Your task to perform on an android device: Turn off the flashlight Image 0: 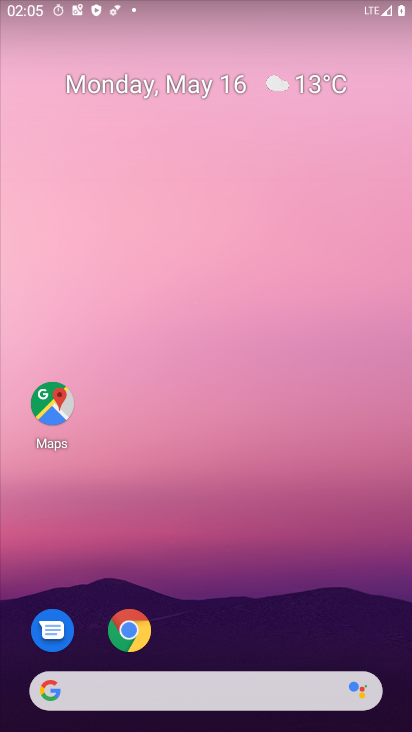
Step 0: drag from (354, 553) to (305, 99)
Your task to perform on an android device: Turn off the flashlight Image 1: 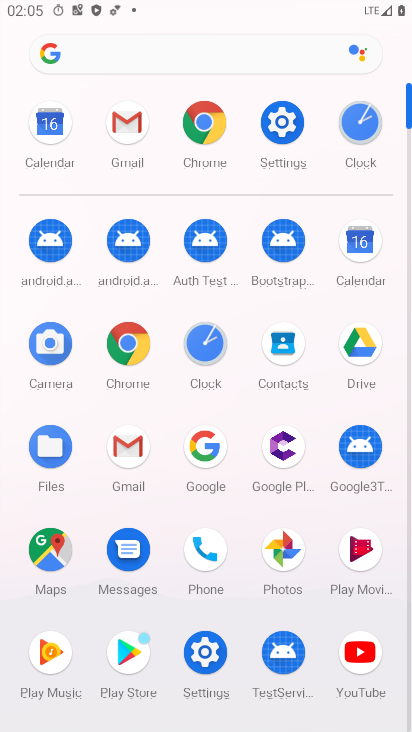
Step 1: click (289, 117)
Your task to perform on an android device: Turn off the flashlight Image 2: 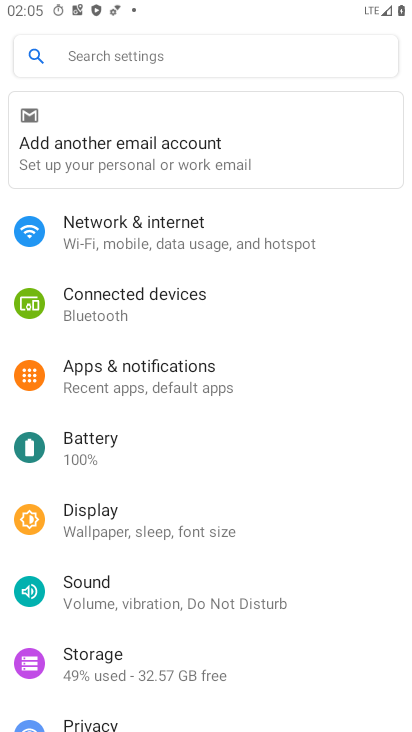
Step 2: click (271, 66)
Your task to perform on an android device: Turn off the flashlight Image 3: 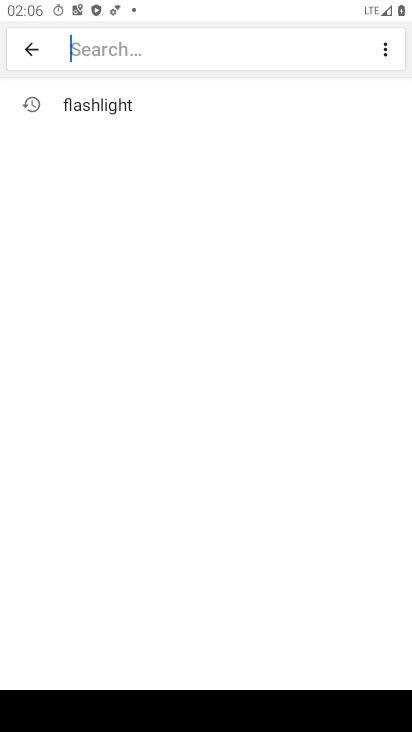
Step 3: type "flashlight"
Your task to perform on an android device: Turn off the flashlight Image 4: 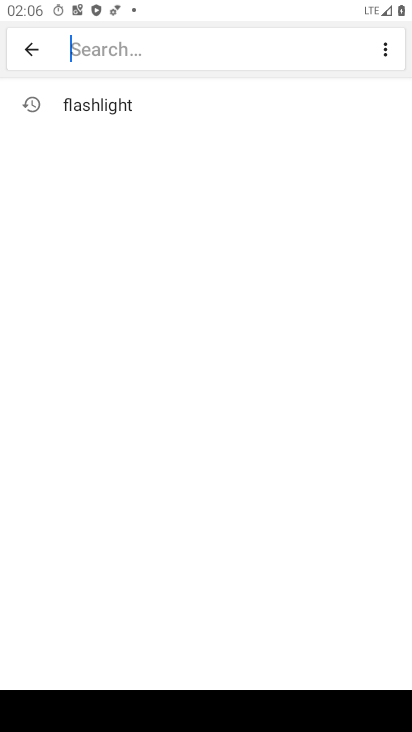
Step 4: click (96, 98)
Your task to perform on an android device: Turn off the flashlight Image 5: 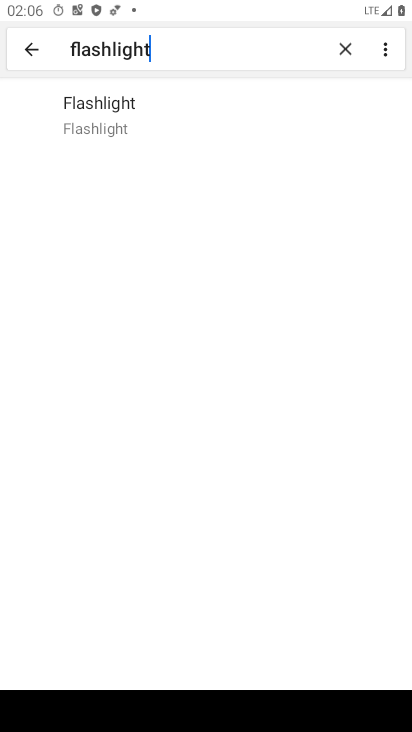
Step 5: task complete